Your task to perform on an android device: What is the news today? Image 0: 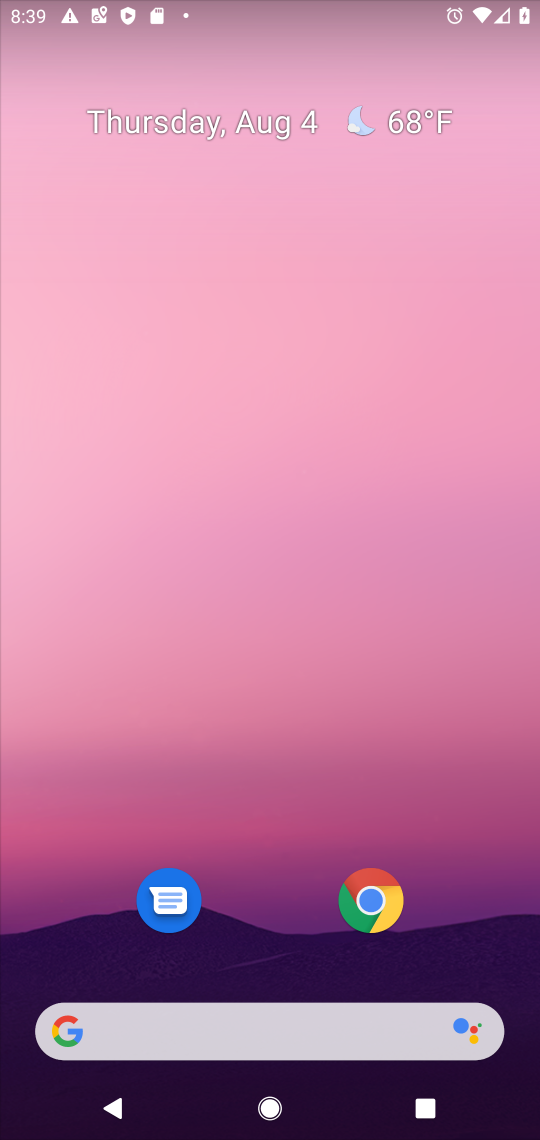
Step 0: drag from (246, 1029) to (396, 9)
Your task to perform on an android device: What is the news today? Image 1: 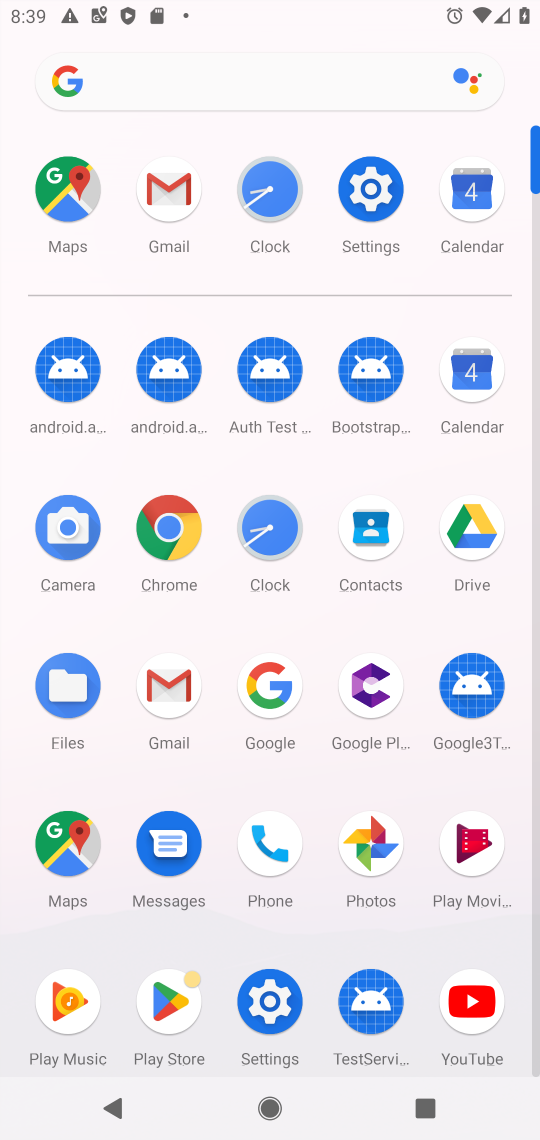
Step 1: click (265, 684)
Your task to perform on an android device: What is the news today? Image 2: 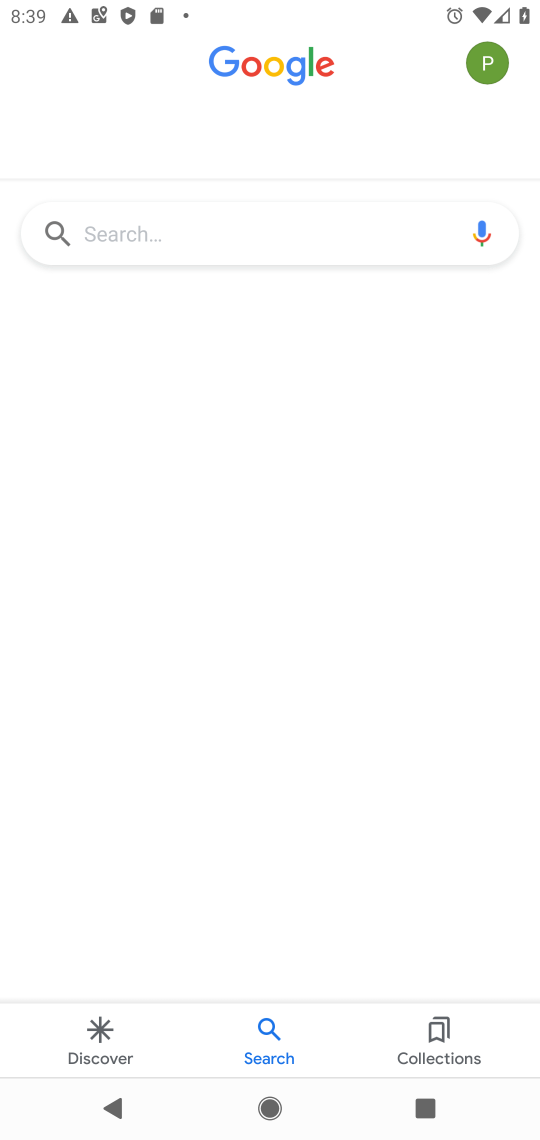
Step 2: click (313, 240)
Your task to perform on an android device: What is the news today? Image 3: 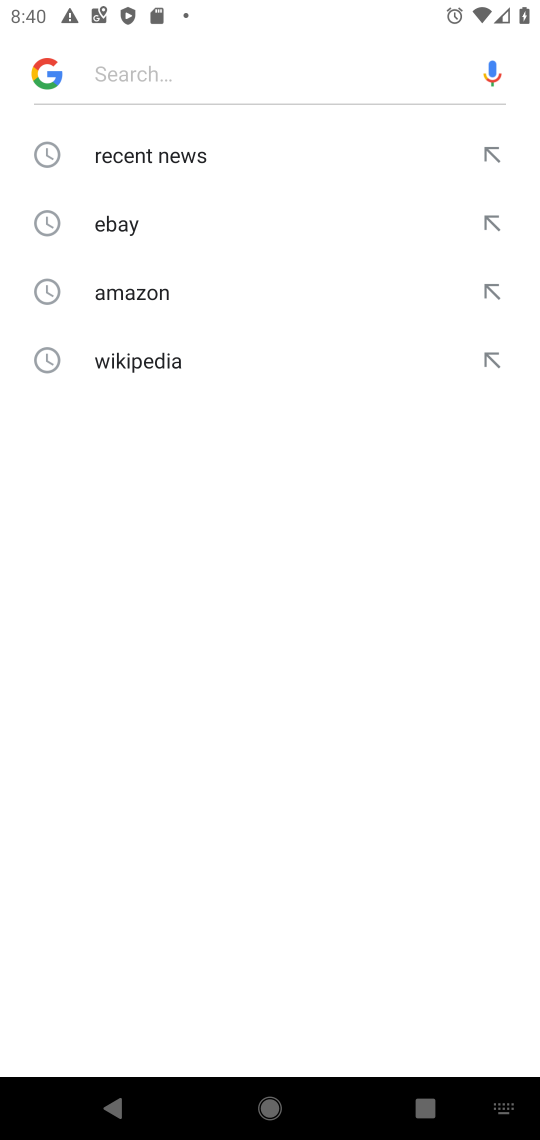
Step 3: type "news today?"
Your task to perform on an android device: What is the news today? Image 4: 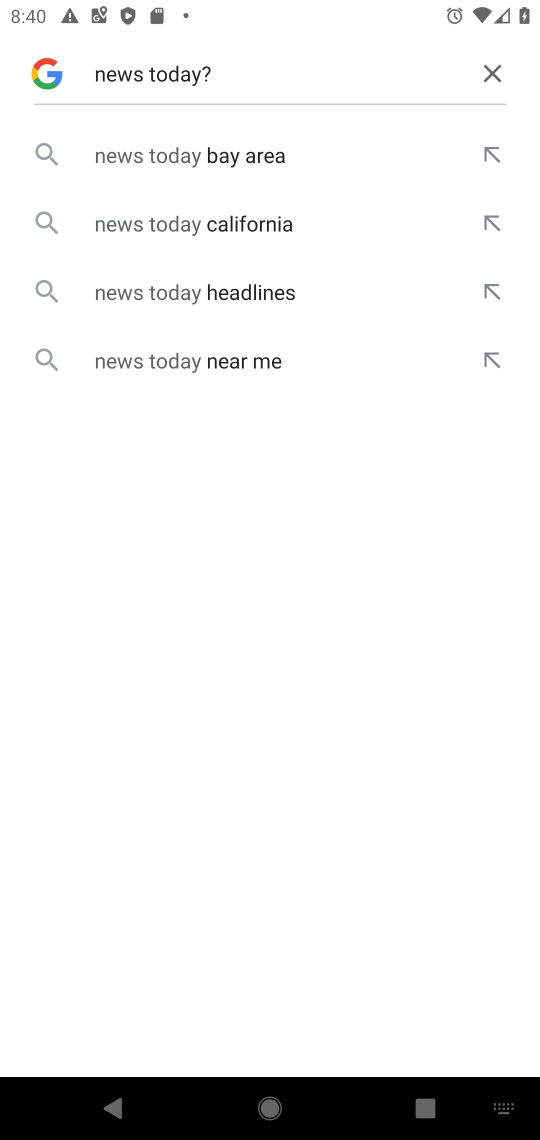
Step 4: click (226, 296)
Your task to perform on an android device: What is the news today? Image 5: 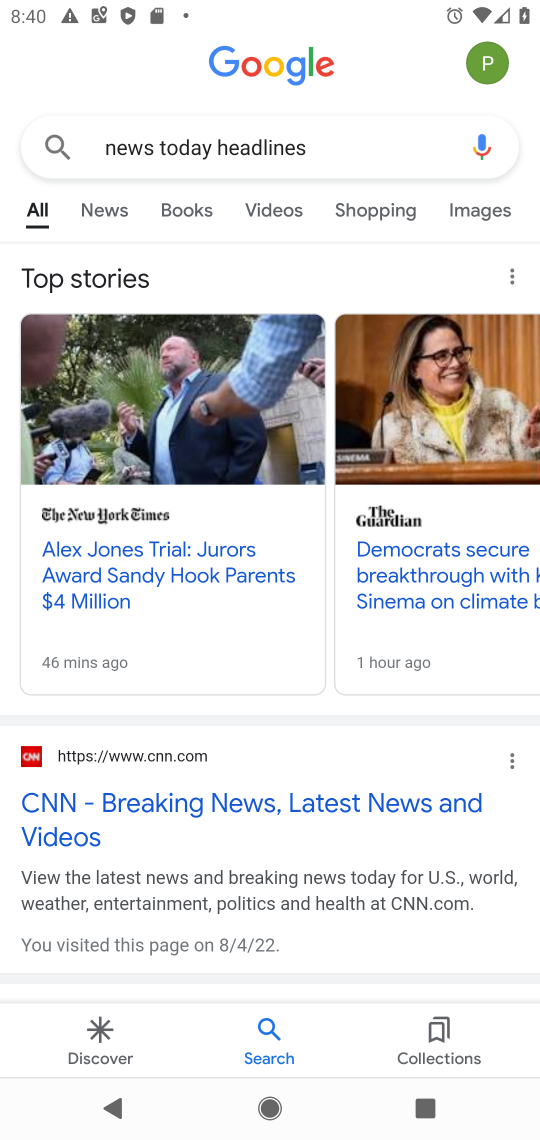
Step 5: click (137, 556)
Your task to perform on an android device: What is the news today? Image 6: 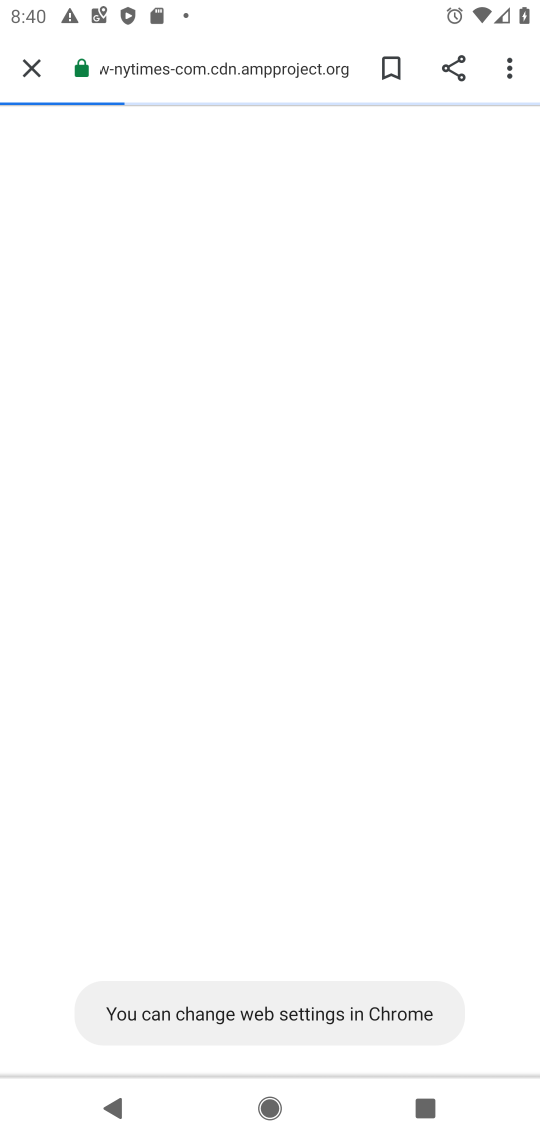
Step 6: click (137, 556)
Your task to perform on an android device: What is the news today? Image 7: 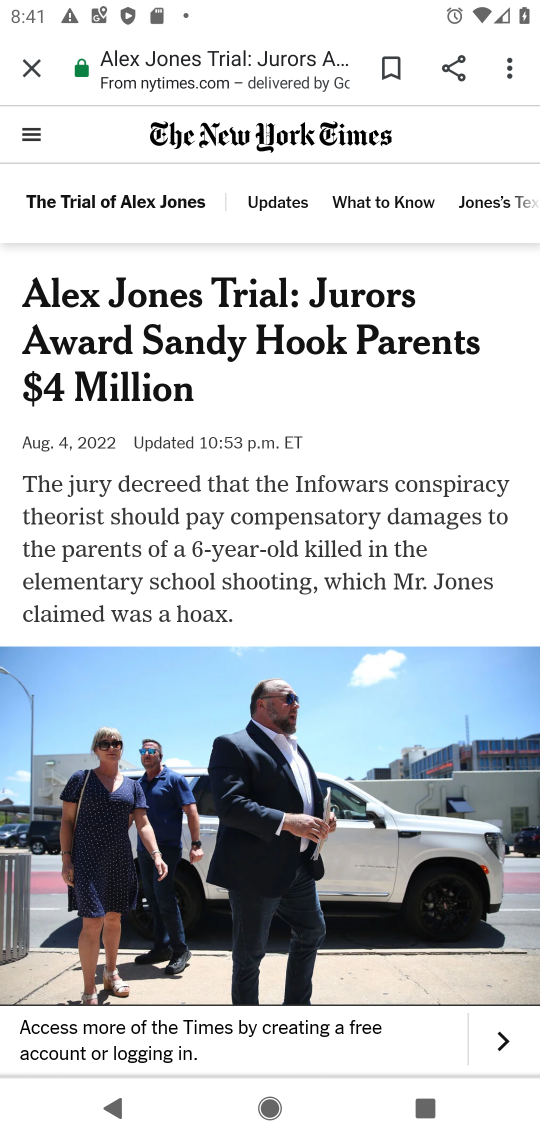
Step 7: task complete